Your task to perform on an android device: turn off location Image 0: 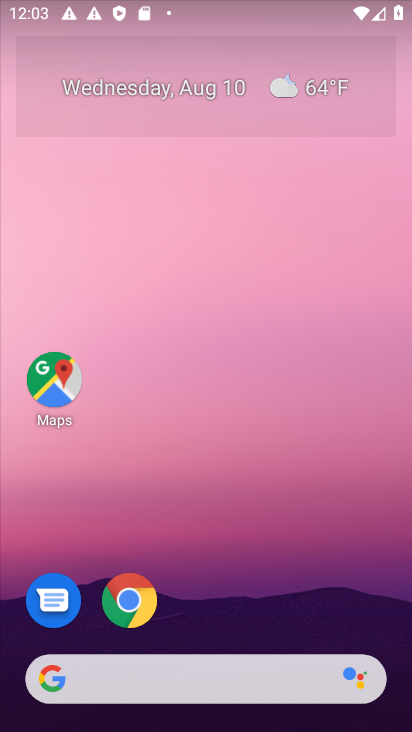
Step 0: drag from (269, 533) to (276, 175)
Your task to perform on an android device: turn off location Image 1: 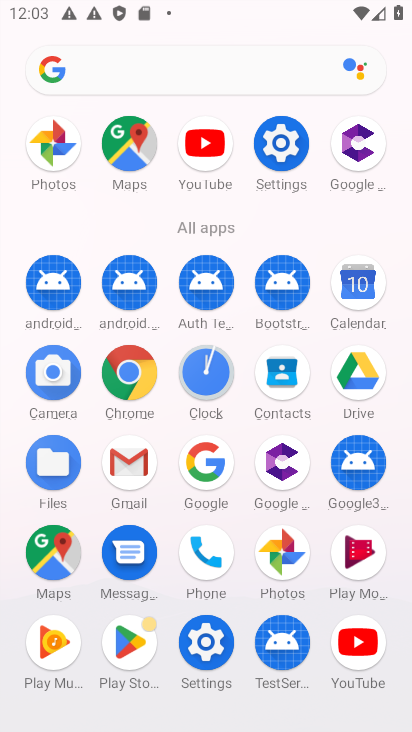
Step 1: click (289, 143)
Your task to perform on an android device: turn off location Image 2: 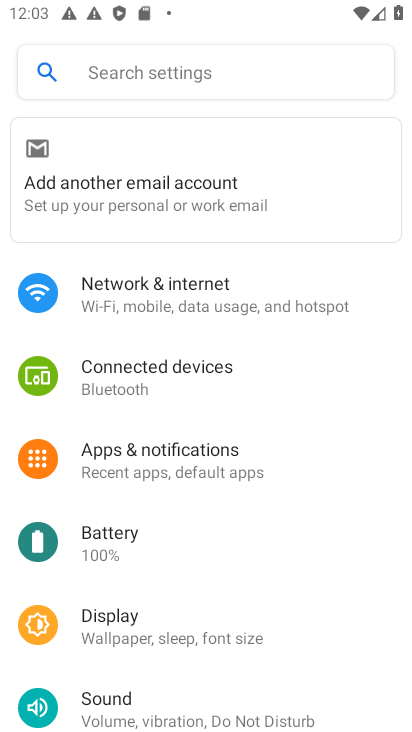
Step 2: task complete